Your task to perform on an android device: open app "LinkedIn" (install if not already installed) Image 0: 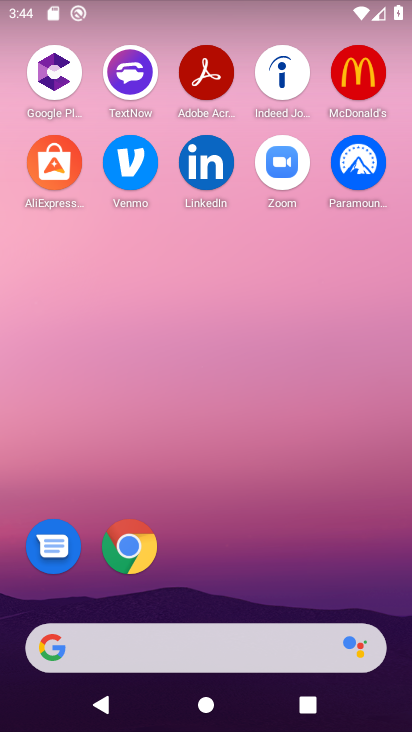
Step 0: click (355, 594)
Your task to perform on an android device: open app "LinkedIn" (install if not already installed) Image 1: 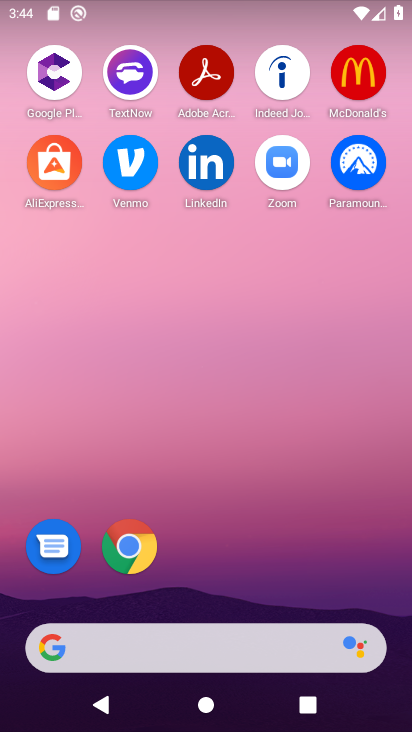
Step 1: click (202, 164)
Your task to perform on an android device: open app "LinkedIn" (install if not already installed) Image 2: 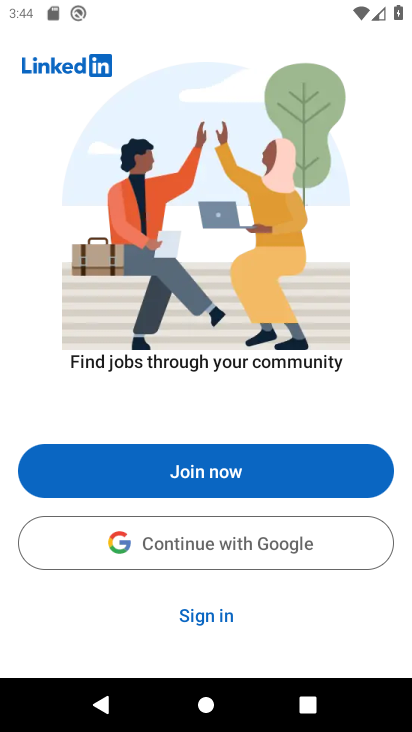
Step 2: task complete